Your task to perform on an android device: Open internet settings Image 0: 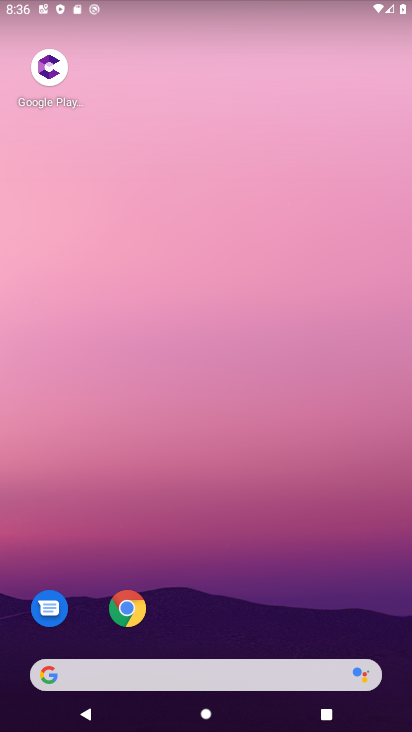
Step 0: drag from (400, 698) to (317, 89)
Your task to perform on an android device: Open internet settings Image 1: 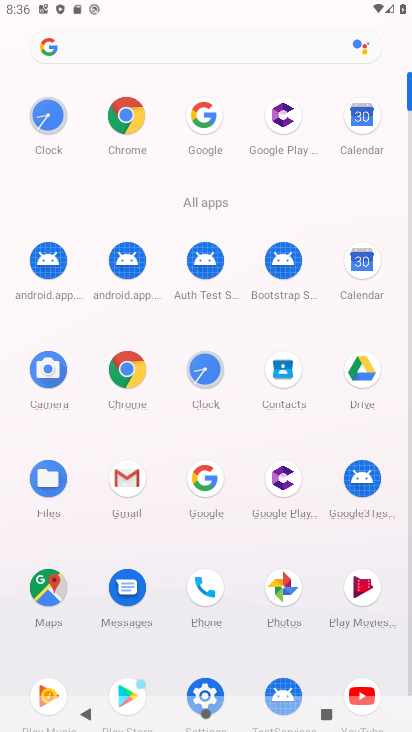
Step 1: click (198, 683)
Your task to perform on an android device: Open internet settings Image 2: 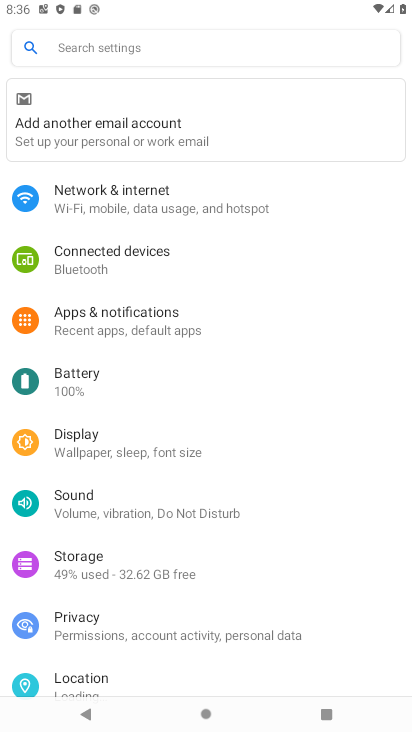
Step 2: click (127, 201)
Your task to perform on an android device: Open internet settings Image 3: 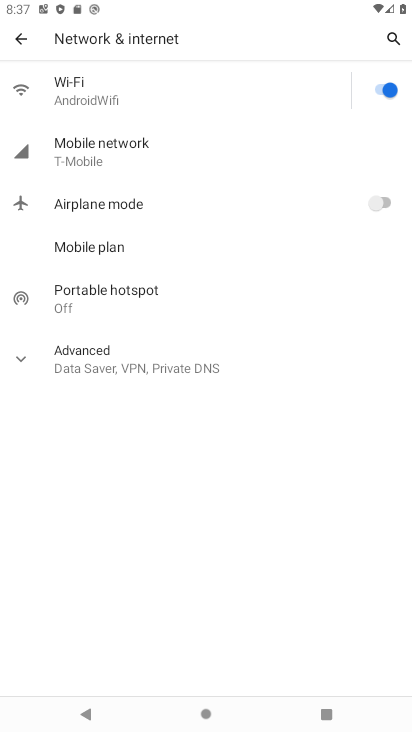
Step 3: task complete